Your task to perform on an android device: refresh tabs in the chrome app Image 0: 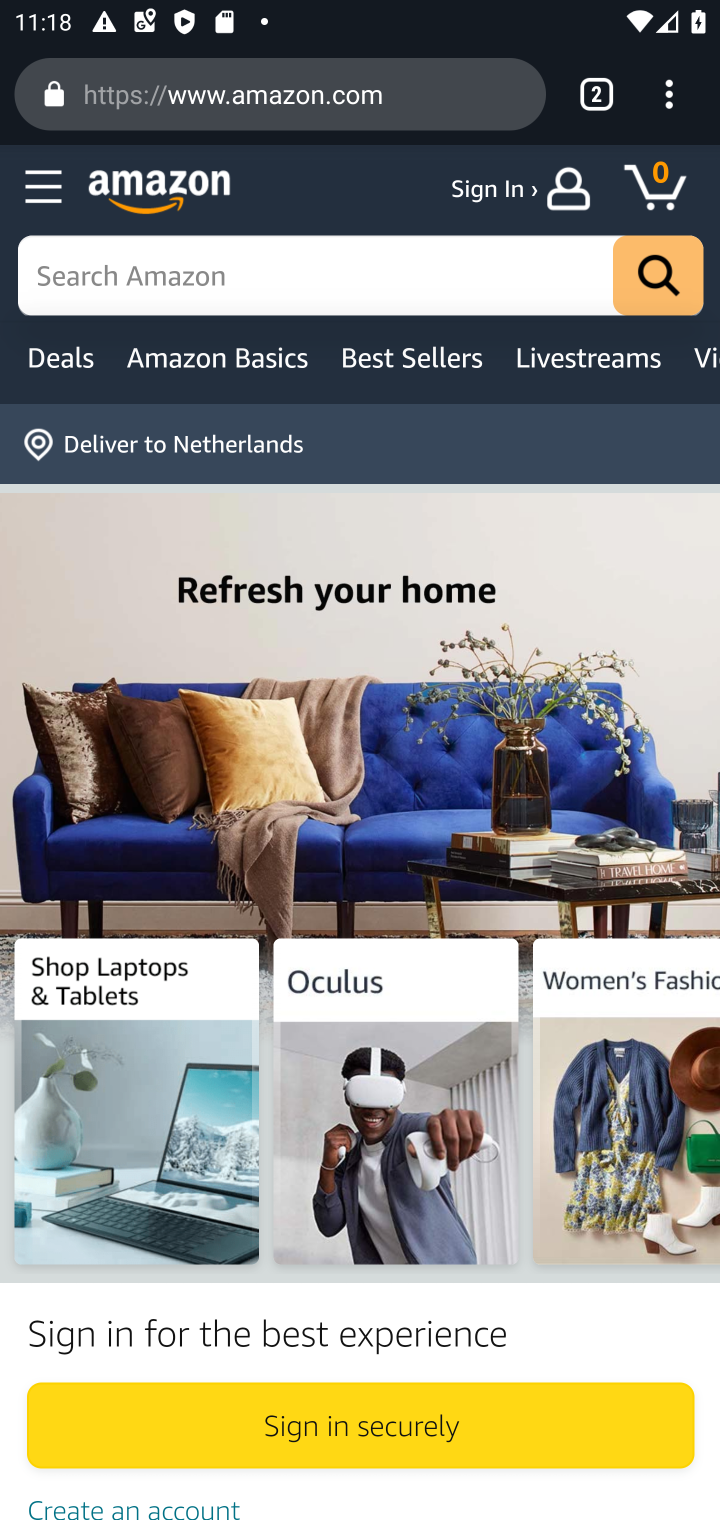
Step 0: click (663, 109)
Your task to perform on an android device: refresh tabs in the chrome app Image 1: 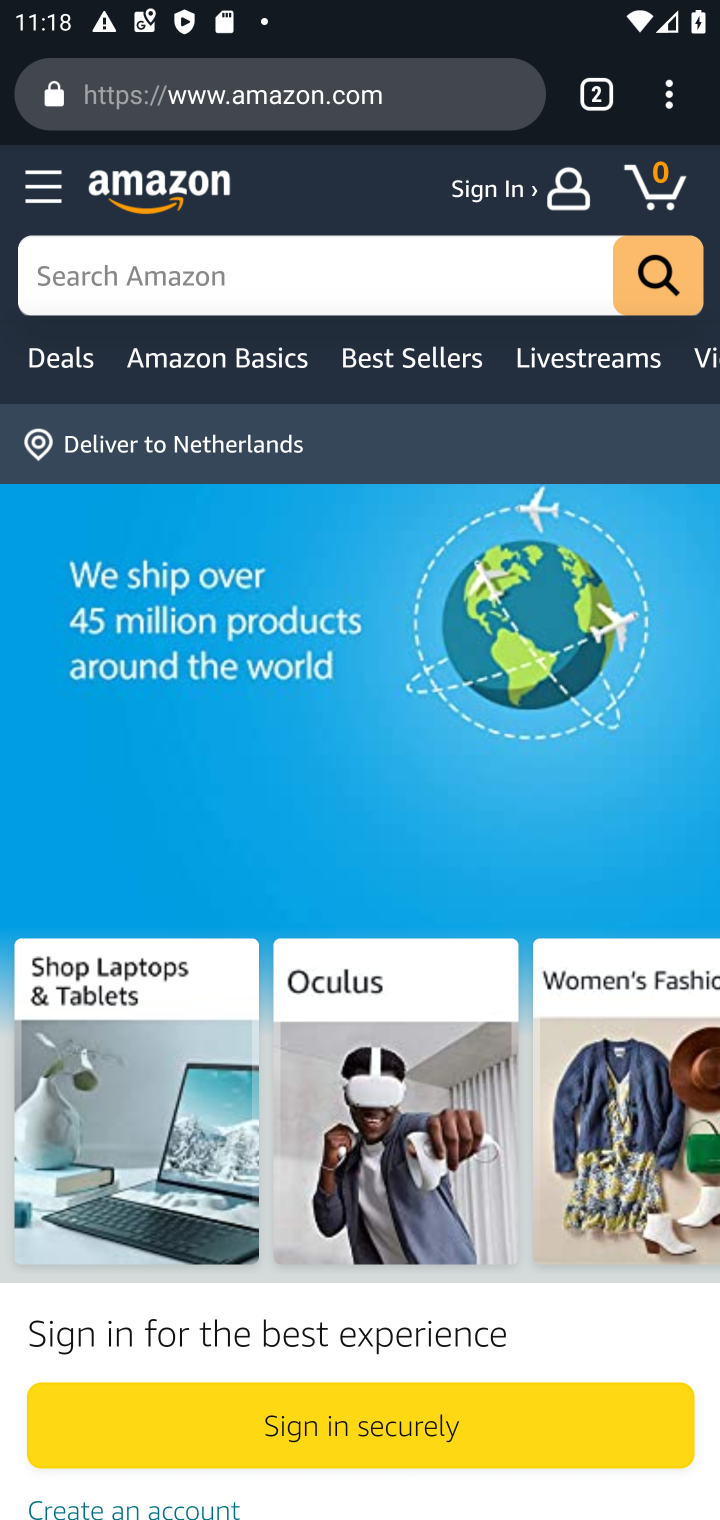
Step 1: click (655, 109)
Your task to perform on an android device: refresh tabs in the chrome app Image 2: 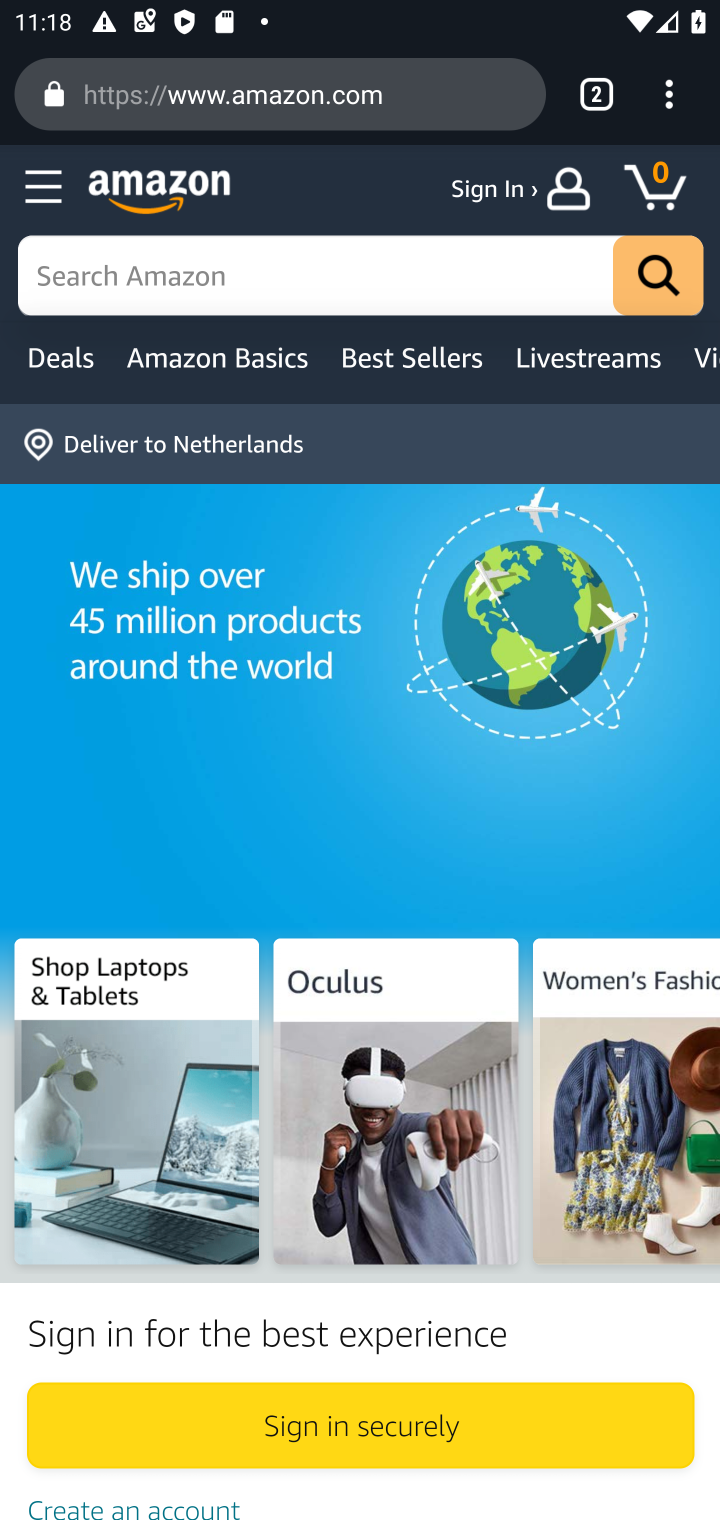
Step 2: click (664, 117)
Your task to perform on an android device: refresh tabs in the chrome app Image 3: 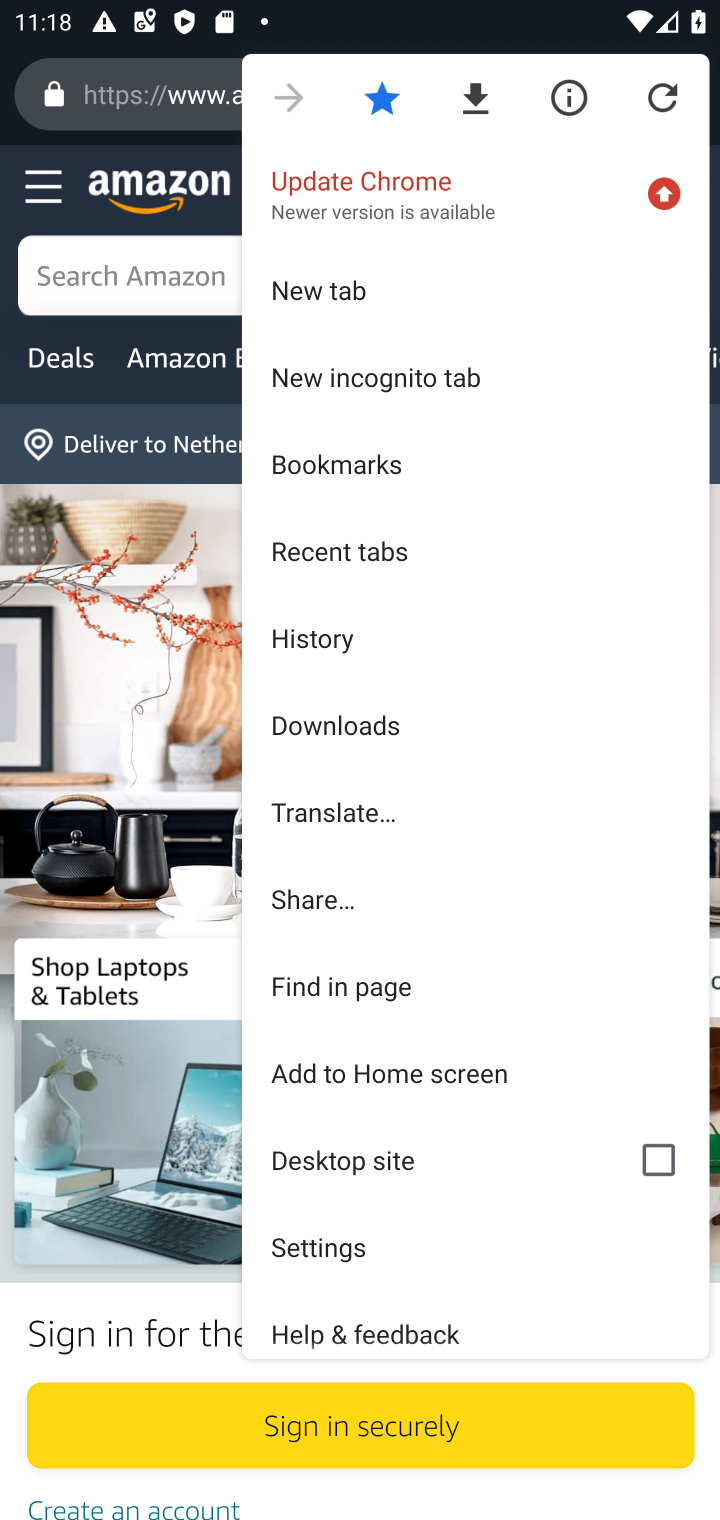
Step 3: click (659, 93)
Your task to perform on an android device: refresh tabs in the chrome app Image 4: 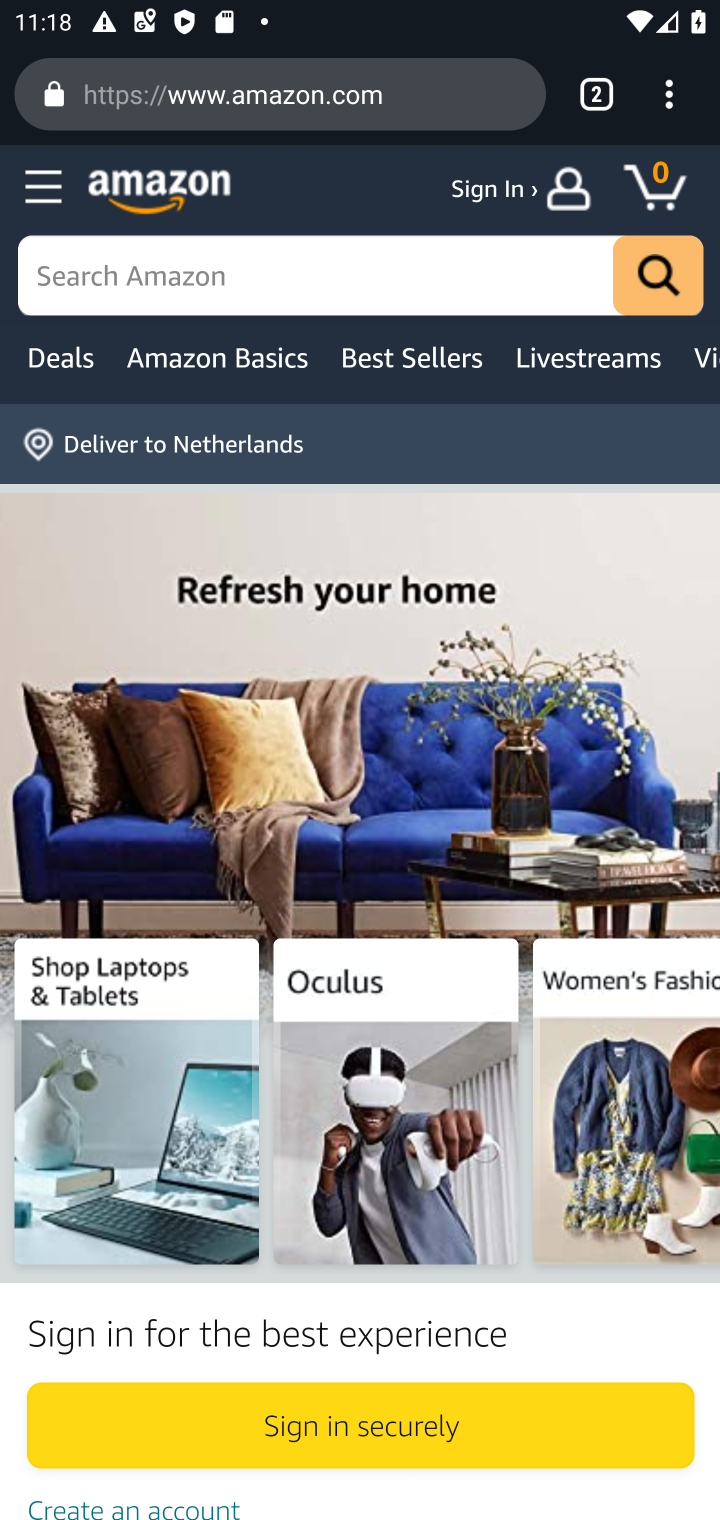
Step 4: task complete